Your task to perform on an android device: delete browsing data in the chrome app Image 0: 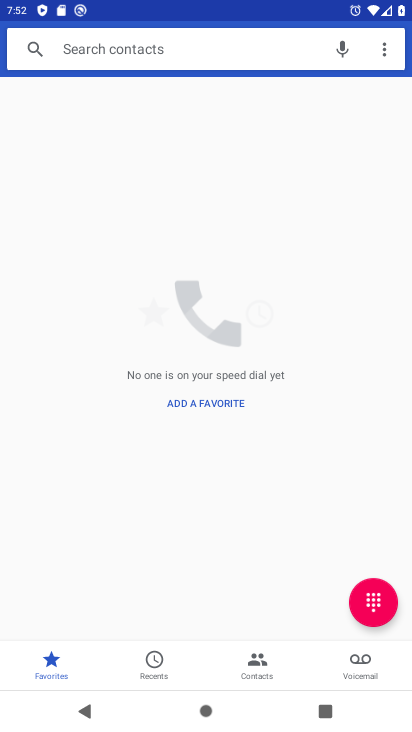
Step 0: press home button
Your task to perform on an android device: delete browsing data in the chrome app Image 1: 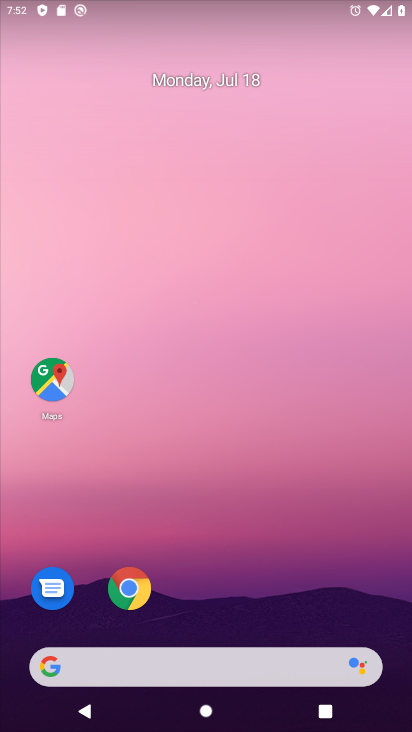
Step 1: click (139, 587)
Your task to perform on an android device: delete browsing data in the chrome app Image 2: 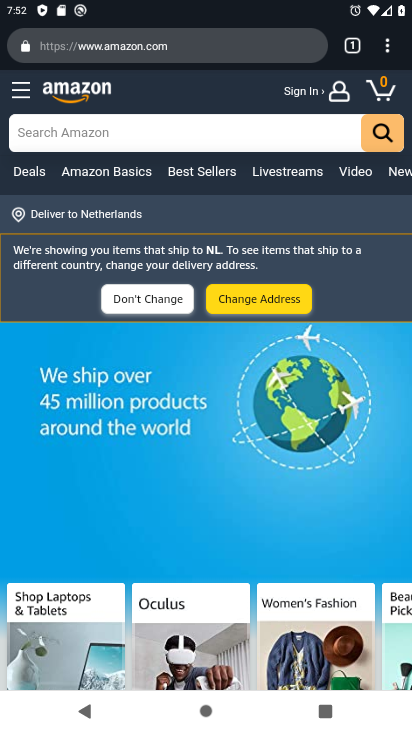
Step 2: click (386, 41)
Your task to perform on an android device: delete browsing data in the chrome app Image 3: 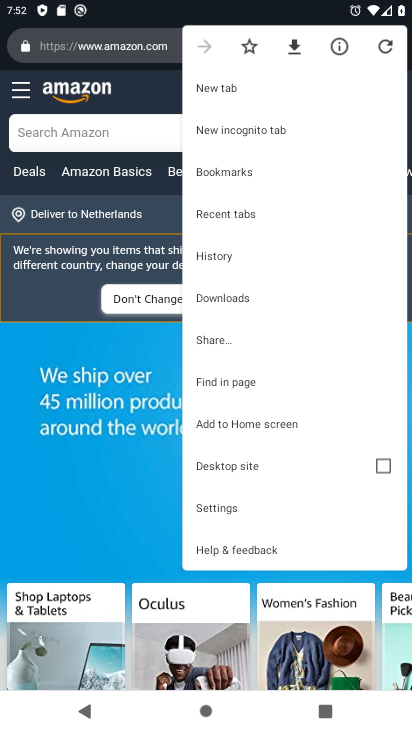
Step 3: click (215, 516)
Your task to perform on an android device: delete browsing data in the chrome app Image 4: 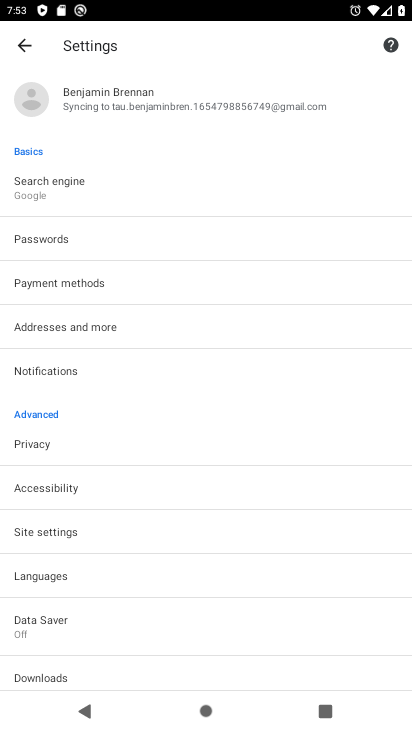
Step 4: click (20, 46)
Your task to perform on an android device: delete browsing data in the chrome app Image 5: 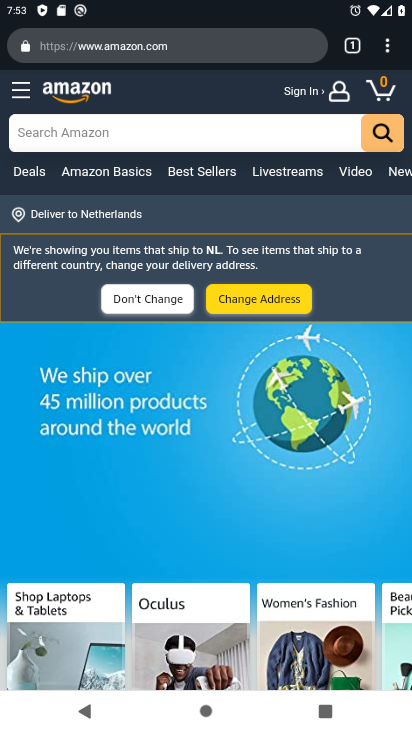
Step 5: click (387, 46)
Your task to perform on an android device: delete browsing data in the chrome app Image 6: 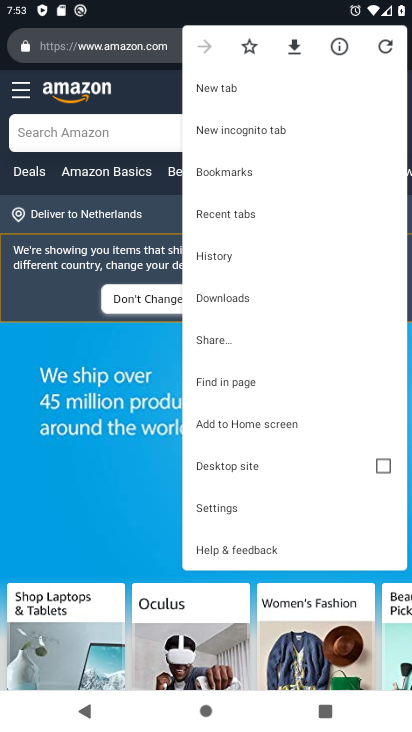
Step 6: click (229, 263)
Your task to perform on an android device: delete browsing data in the chrome app Image 7: 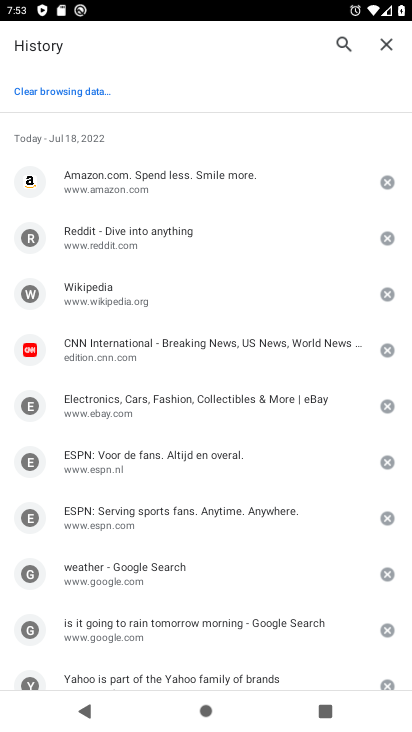
Step 7: click (73, 96)
Your task to perform on an android device: delete browsing data in the chrome app Image 8: 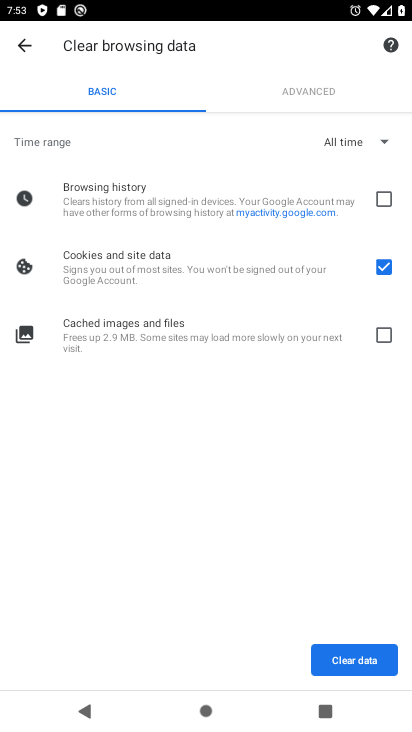
Step 8: click (353, 185)
Your task to perform on an android device: delete browsing data in the chrome app Image 9: 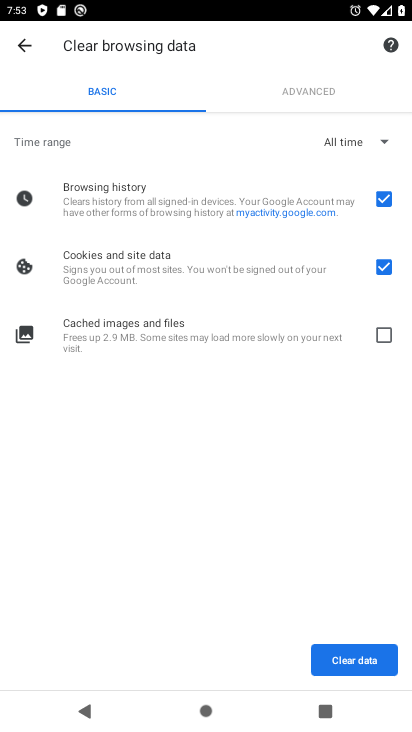
Step 9: click (379, 319)
Your task to perform on an android device: delete browsing data in the chrome app Image 10: 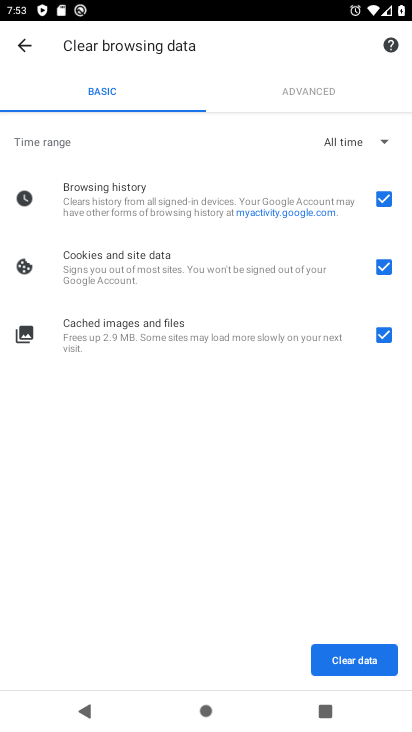
Step 10: click (361, 654)
Your task to perform on an android device: delete browsing data in the chrome app Image 11: 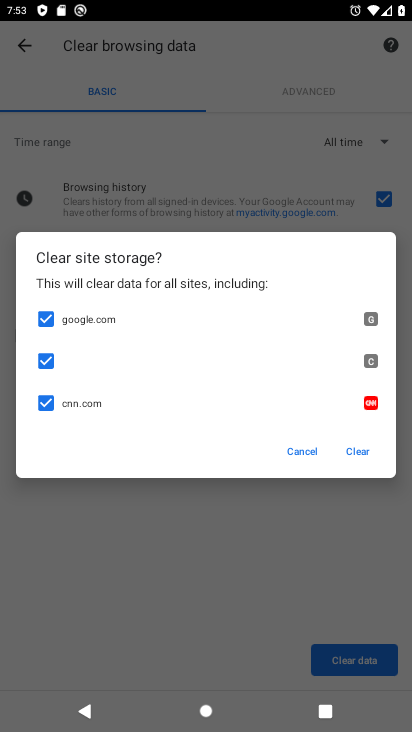
Step 11: click (361, 453)
Your task to perform on an android device: delete browsing data in the chrome app Image 12: 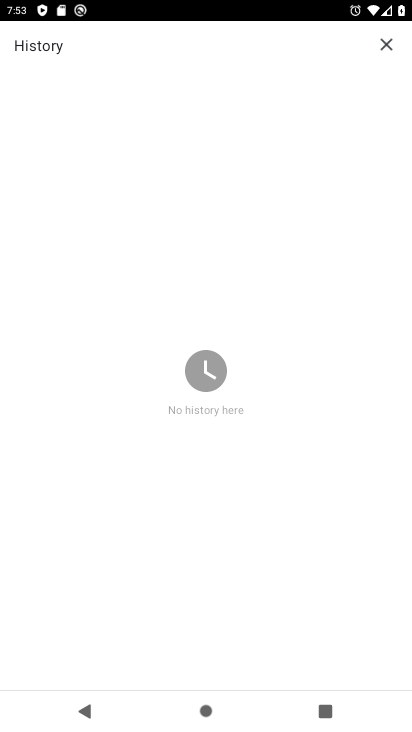
Step 12: task complete